Your task to perform on an android device: choose inbox layout in the gmail app Image 0: 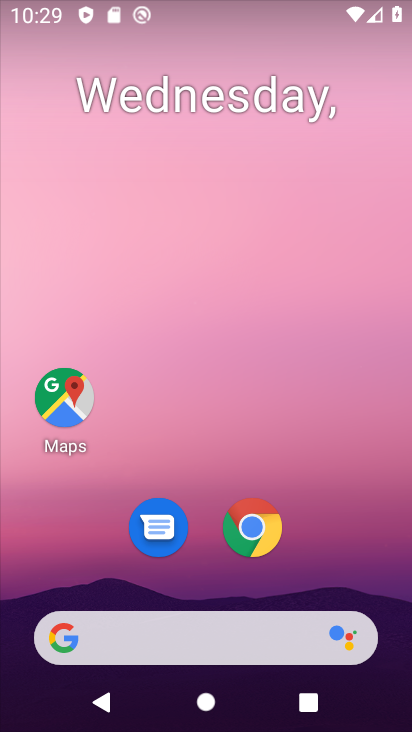
Step 0: drag from (350, 548) to (364, 12)
Your task to perform on an android device: choose inbox layout in the gmail app Image 1: 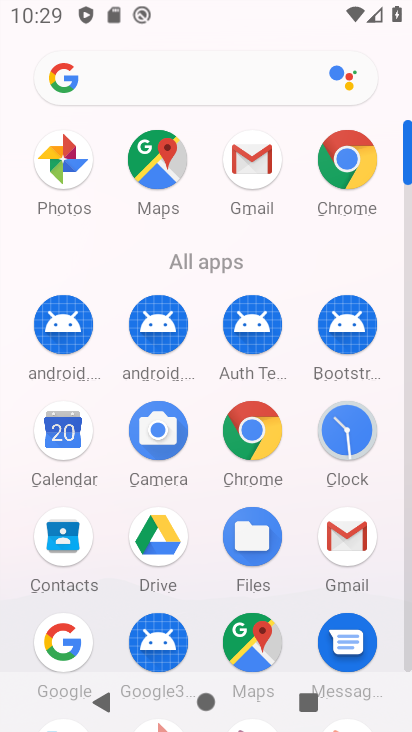
Step 1: click (244, 156)
Your task to perform on an android device: choose inbox layout in the gmail app Image 2: 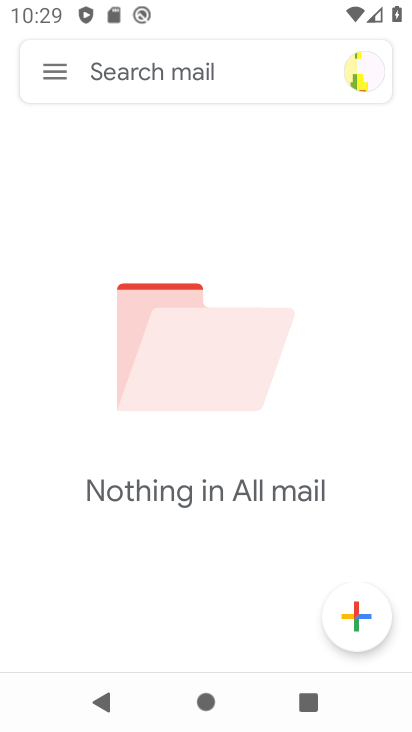
Step 2: click (56, 75)
Your task to perform on an android device: choose inbox layout in the gmail app Image 3: 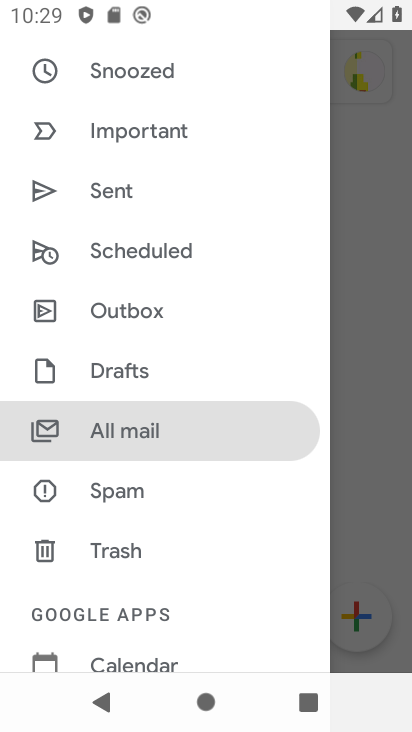
Step 3: drag from (264, 589) to (252, 236)
Your task to perform on an android device: choose inbox layout in the gmail app Image 4: 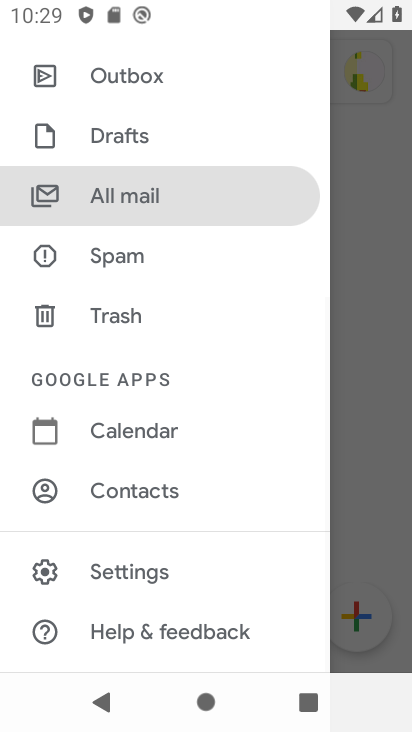
Step 4: click (128, 574)
Your task to perform on an android device: choose inbox layout in the gmail app Image 5: 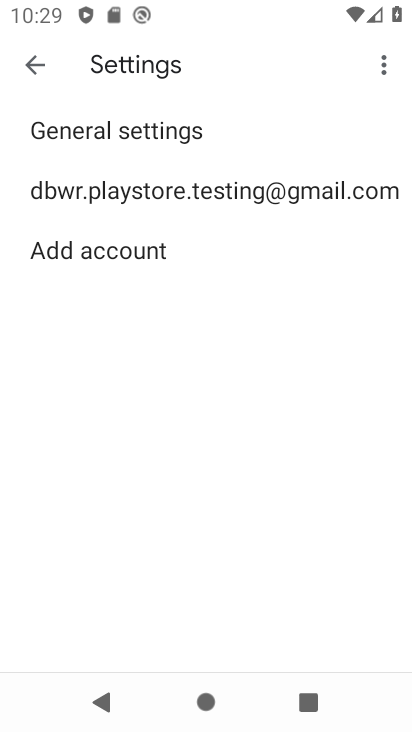
Step 5: click (135, 197)
Your task to perform on an android device: choose inbox layout in the gmail app Image 6: 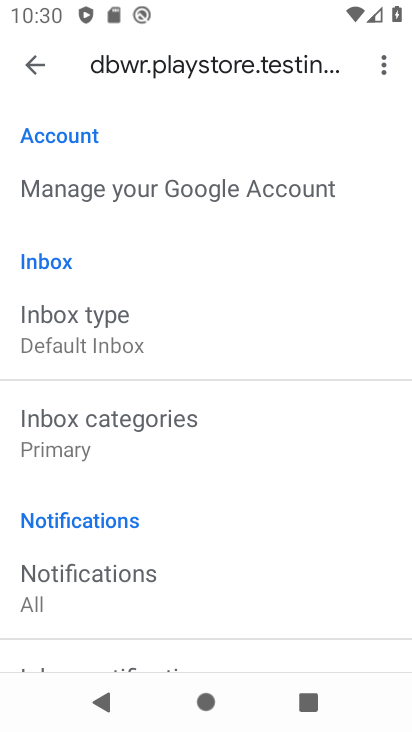
Step 6: click (75, 336)
Your task to perform on an android device: choose inbox layout in the gmail app Image 7: 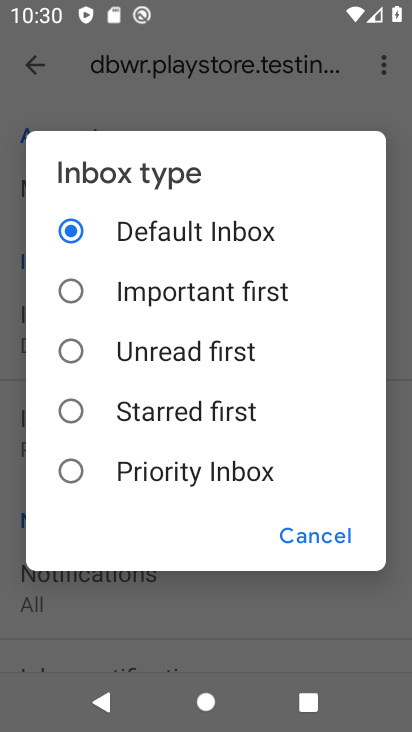
Step 7: click (74, 352)
Your task to perform on an android device: choose inbox layout in the gmail app Image 8: 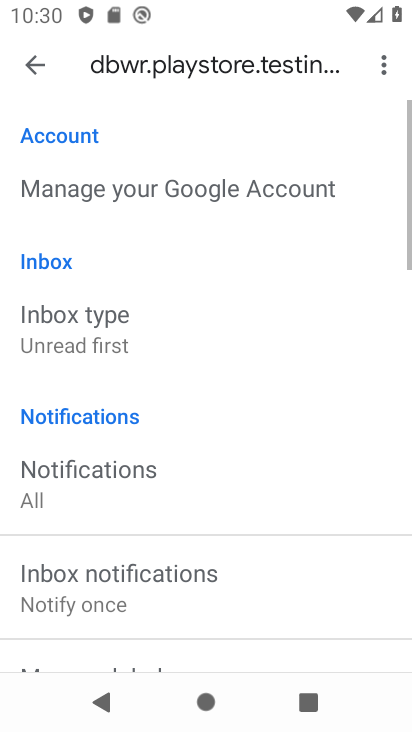
Step 8: task complete